Your task to perform on an android device: Open CNN.com Image 0: 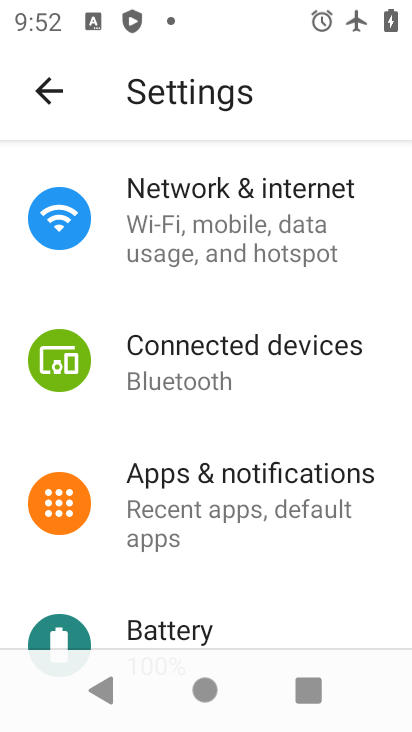
Step 0: press home button
Your task to perform on an android device: Open CNN.com Image 1: 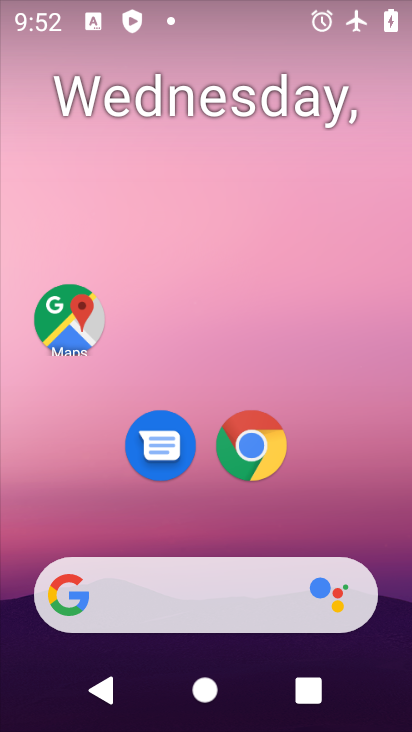
Step 1: drag from (303, 538) to (271, 118)
Your task to perform on an android device: Open CNN.com Image 2: 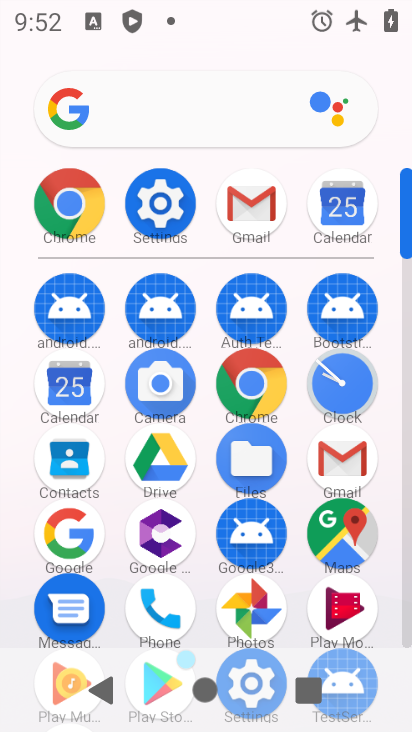
Step 2: click (58, 195)
Your task to perform on an android device: Open CNN.com Image 3: 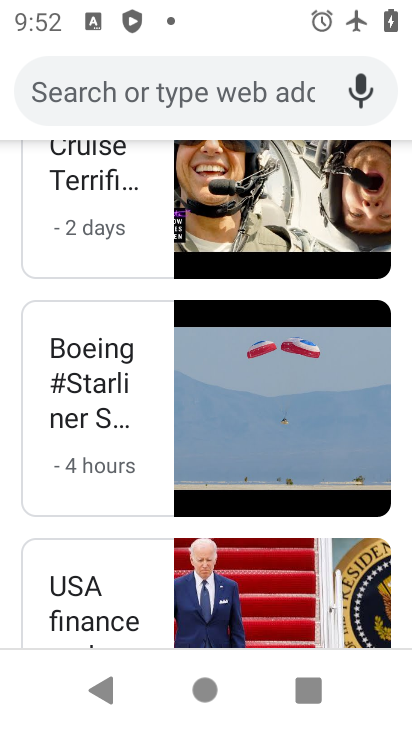
Step 3: drag from (61, 244) to (19, 731)
Your task to perform on an android device: Open CNN.com Image 4: 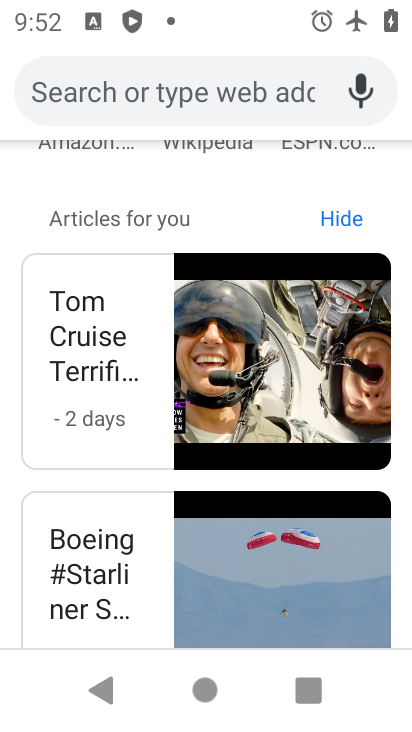
Step 4: click (170, 83)
Your task to perform on an android device: Open CNN.com Image 5: 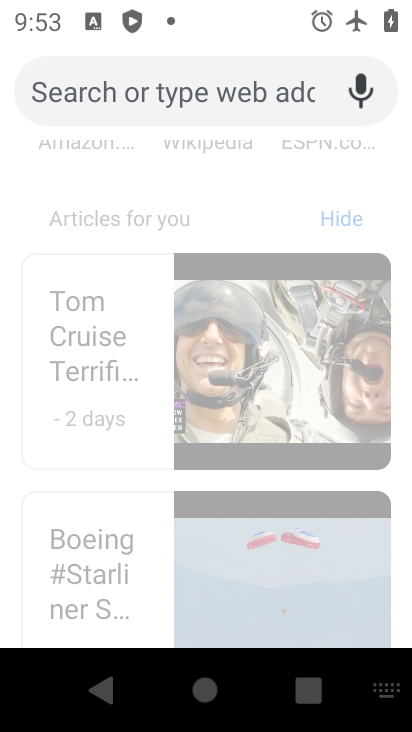
Step 5: type "cnn"
Your task to perform on an android device: Open CNN.com Image 6: 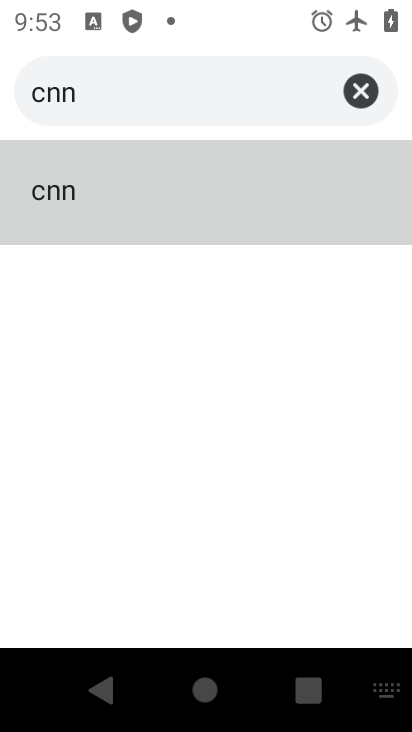
Step 6: click (75, 207)
Your task to perform on an android device: Open CNN.com Image 7: 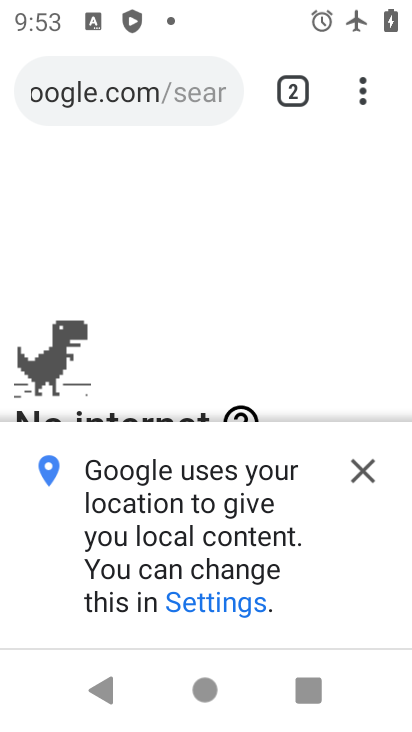
Step 7: click (135, 114)
Your task to perform on an android device: Open CNN.com Image 8: 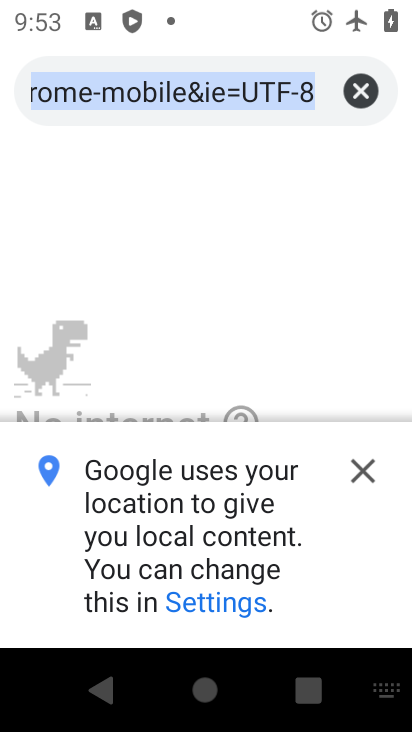
Step 8: click (348, 92)
Your task to perform on an android device: Open CNN.com Image 9: 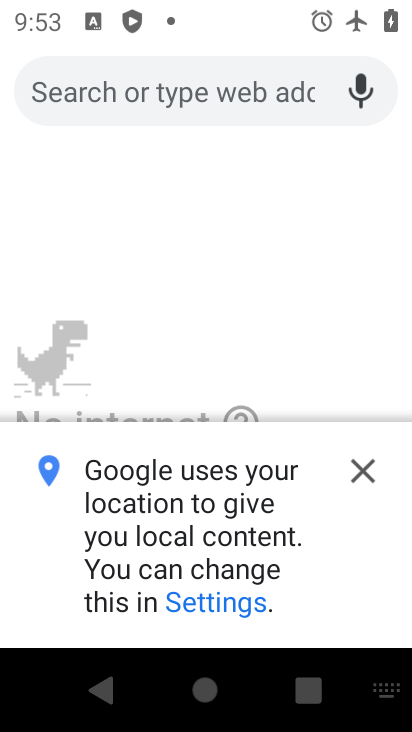
Step 9: type "cnn"
Your task to perform on an android device: Open CNN.com Image 10: 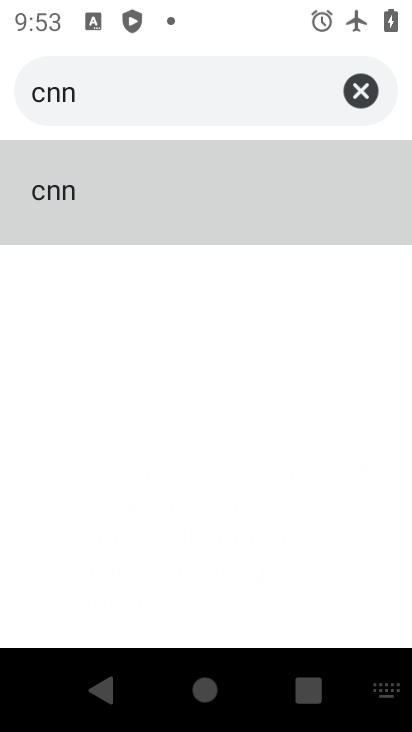
Step 10: click (58, 195)
Your task to perform on an android device: Open CNN.com Image 11: 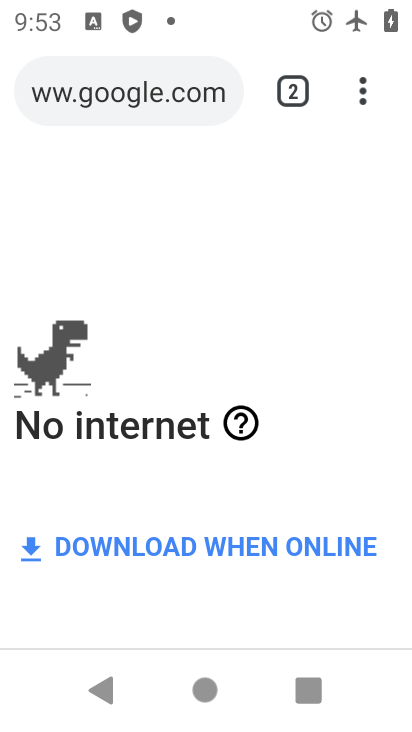
Step 11: task complete